Your task to perform on an android device: Search for Italian restaurants on Maps Image 0: 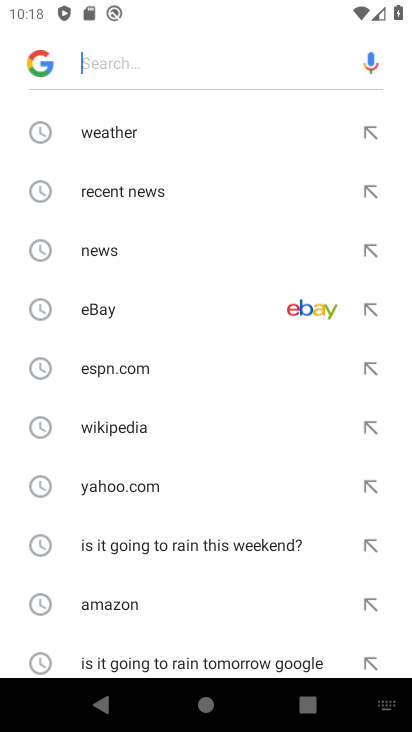
Step 0: press home button
Your task to perform on an android device: Search for Italian restaurants on Maps Image 1: 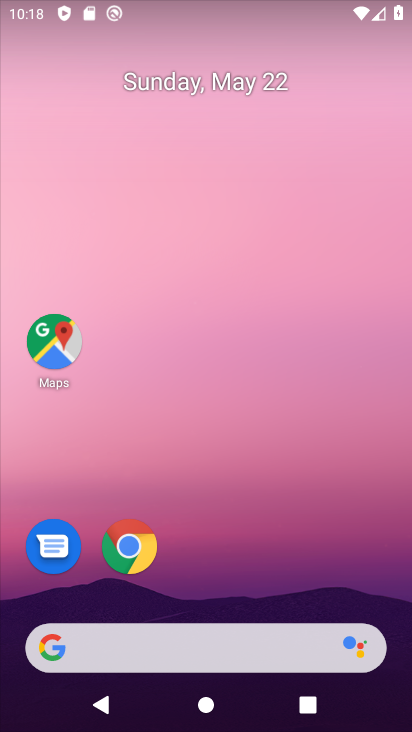
Step 1: click (49, 340)
Your task to perform on an android device: Search for Italian restaurants on Maps Image 2: 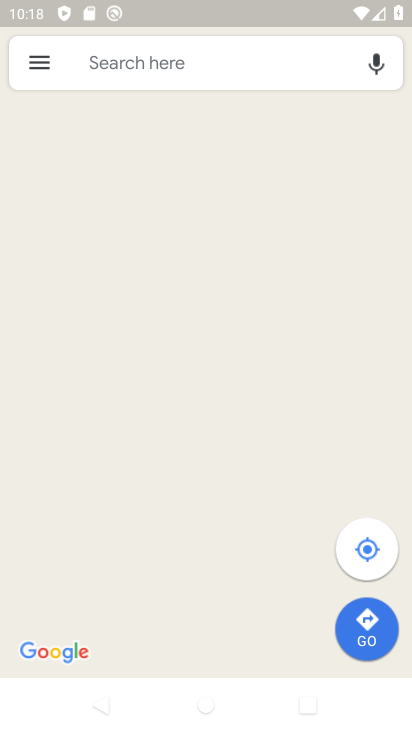
Step 2: click (204, 79)
Your task to perform on an android device: Search for Italian restaurants on Maps Image 3: 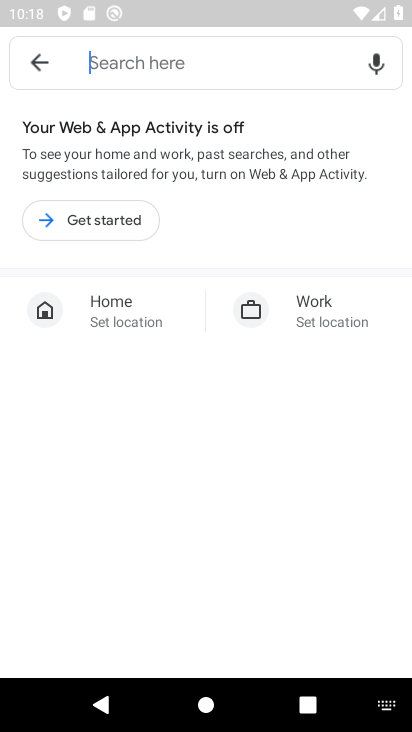
Step 3: type "italian restaurants"
Your task to perform on an android device: Search for Italian restaurants on Maps Image 4: 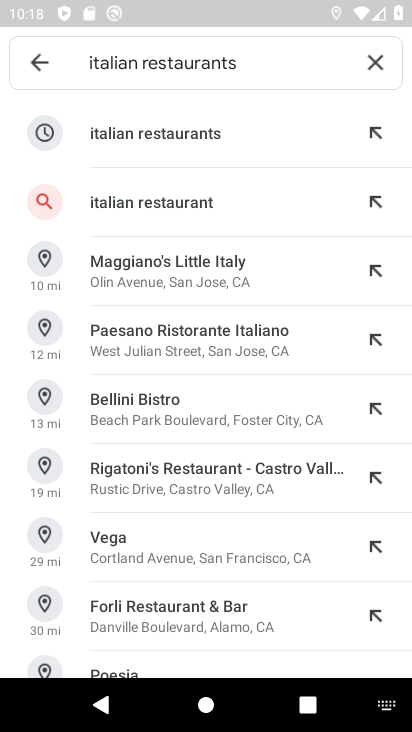
Step 4: click (150, 148)
Your task to perform on an android device: Search for Italian restaurants on Maps Image 5: 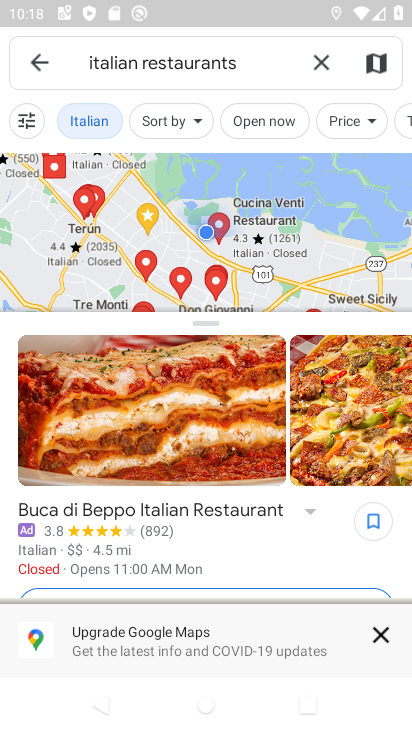
Step 5: task complete